Your task to perform on an android device: Search for "razer blade" on bestbuy.com, select the first entry, add it to the cart, then select checkout. Image 0: 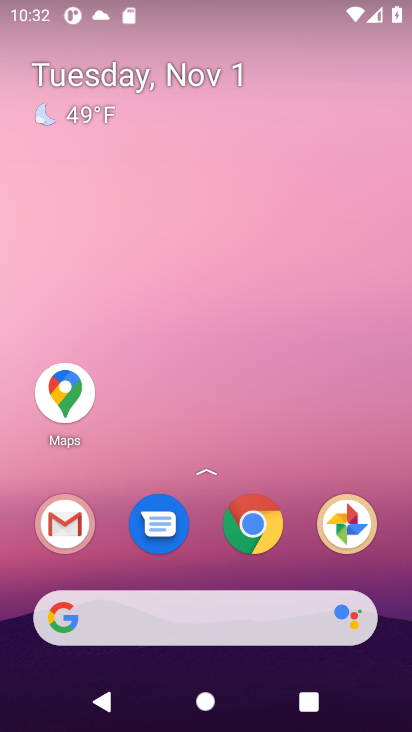
Step 0: press home button
Your task to perform on an android device: Search for "razer blade" on bestbuy.com, select the first entry, add it to the cart, then select checkout. Image 1: 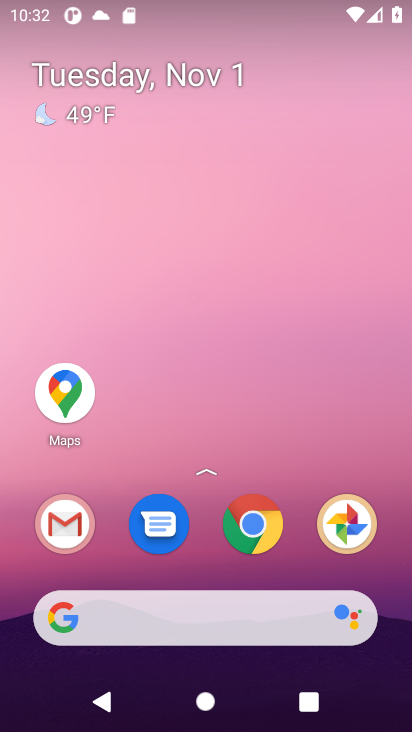
Step 1: click (97, 614)
Your task to perform on an android device: Search for "razer blade" on bestbuy.com, select the first entry, add it to the cart, then select checkout. Image 2: 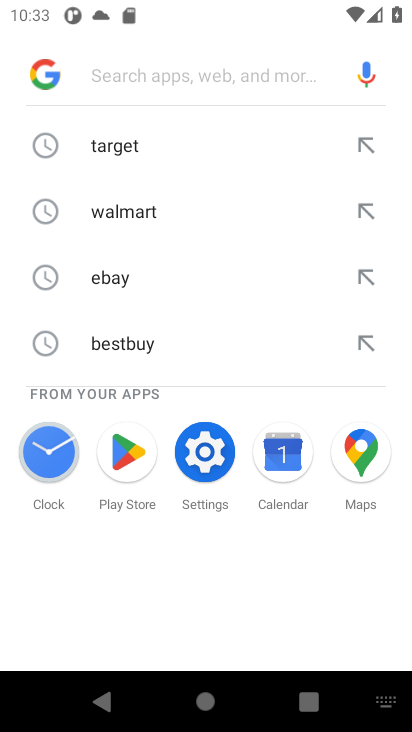
Step 2: type "bestbuy.com"
Your task to perform on an android device: Search for "razer blade" on bestbuy.com, select the first entry, add it to the cart, then select checkout. Image 3: 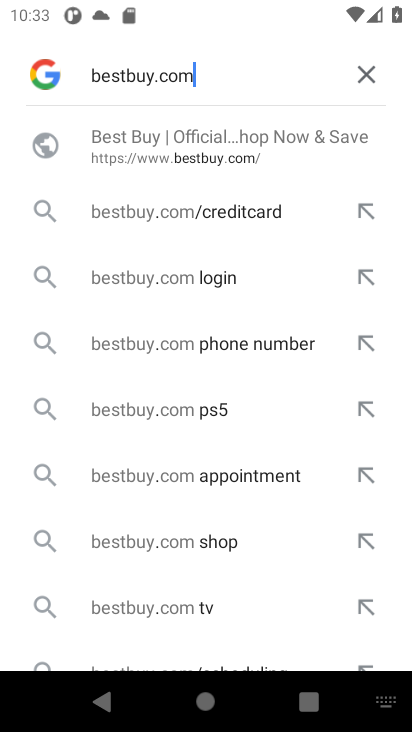
Step 3: press enter
Your task to perform on an android device: Search for "razer blade" on bestbuy.com, select the first entry, add it to the cart, then select checkout. Image 4: 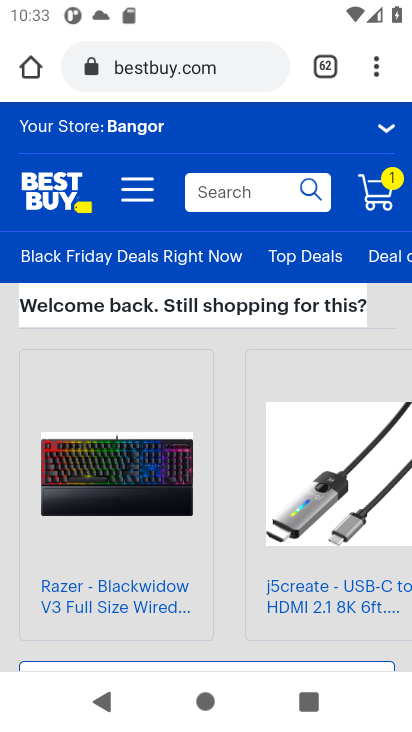
Step 4: click (206, 190)
Your task to perform on an android device: Search for "razer blade" on bestbuy.com, select the first entry, add it to the cart, then select checkout. Image 5: 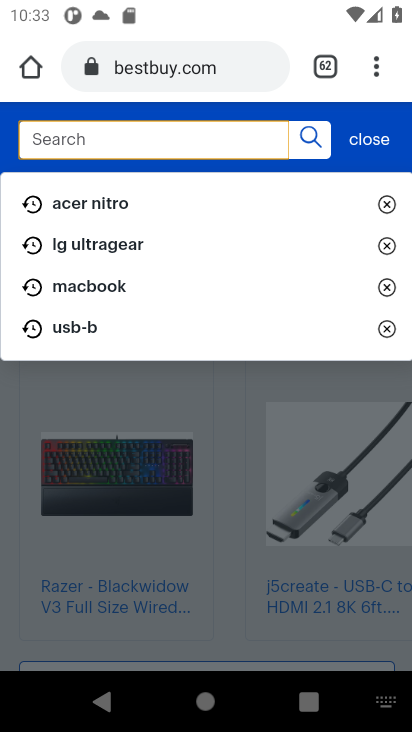
Step 5: type "razer blade"
Your task to perform on an android device: Search for "razer blade" on bestbuy.com, select the first entry, add it to the cart, then select checkout. Image 6: 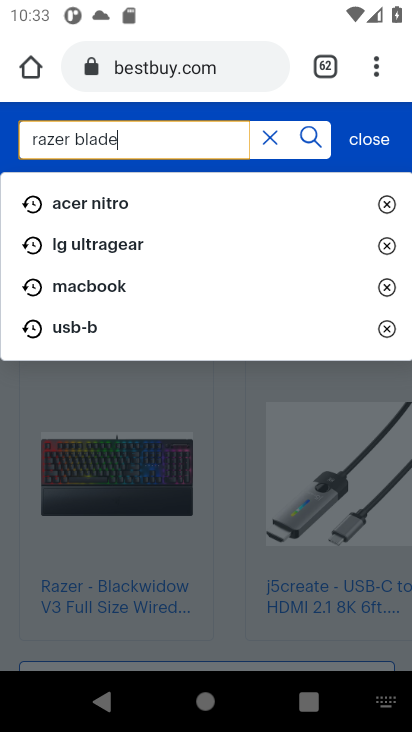
Step 6: press enter
Your task to perform on an android device: Search for "razer blade" on bestbuy.com, select the first entry, add it to the cart, then select checkout. Image 7: 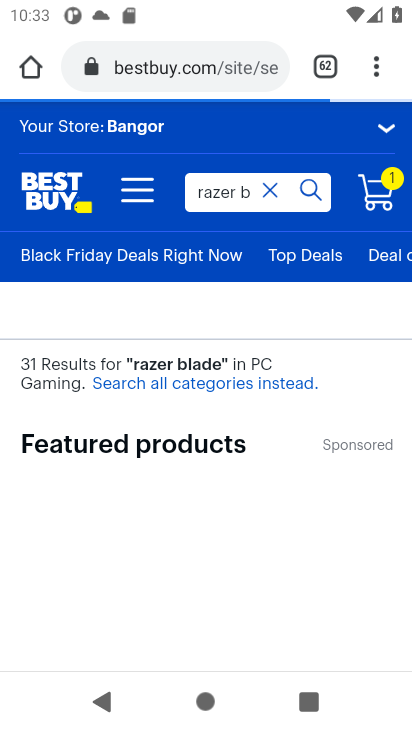
Step 7: drag from (264, 584) to (266, 274)
Your task to perform on an android device: Search for "razer blade" on bestbuy.com, select the first entry, add it to the cart, then select checkout. Image 8: 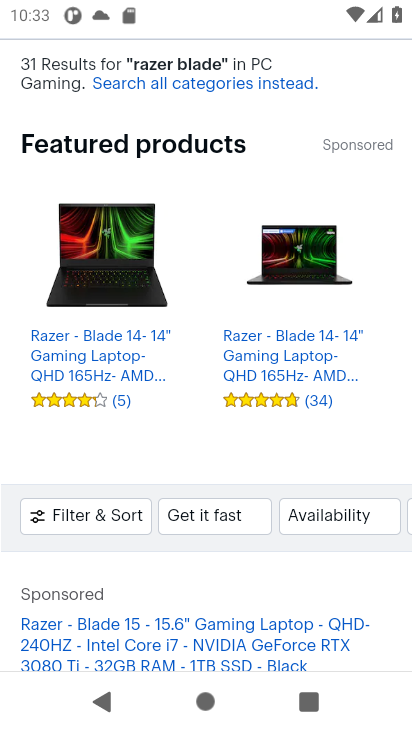
Step 8: drag from (238, 589) to (261, 298)
Your task to perform on an android device: Search for "razer blade" on bestbuy.com, select the first entry, add it to the cart, then select checkout. Image 9: 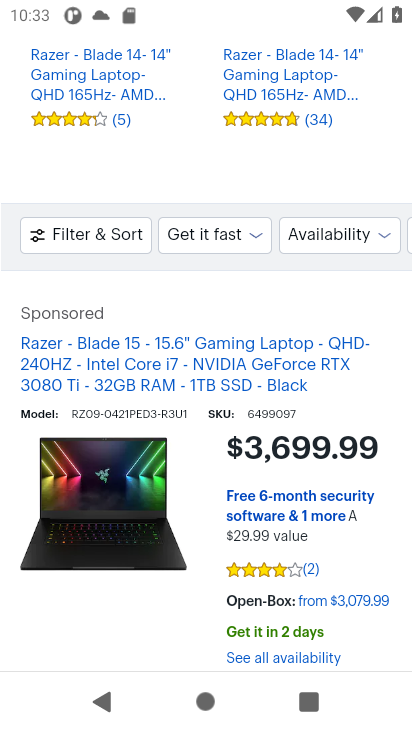
Step 9: drag from (186, 553) to (211, 345)
Your task to perform on an android device: Search for "razer blade" on bestbuy.com, select the first entry, add it to the cart, then select checkout. Image 10: 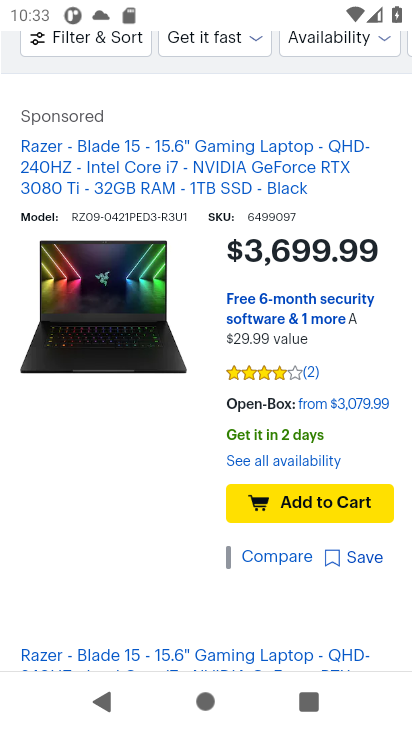
Step 10: click (316, 491)
Your task to perform on an android device: Search for "razer blade" on bestbuy.com, select the first entry, add it to the cart, then select checkout. Image 11: 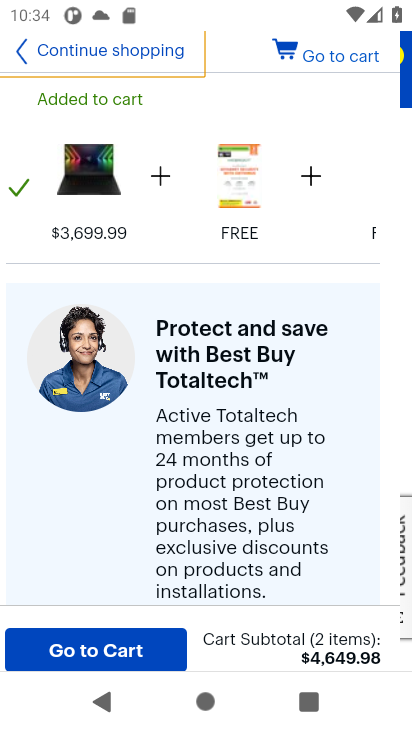
Step 11: task complete